Your task to perform on an android device: Open eBay Image 0: 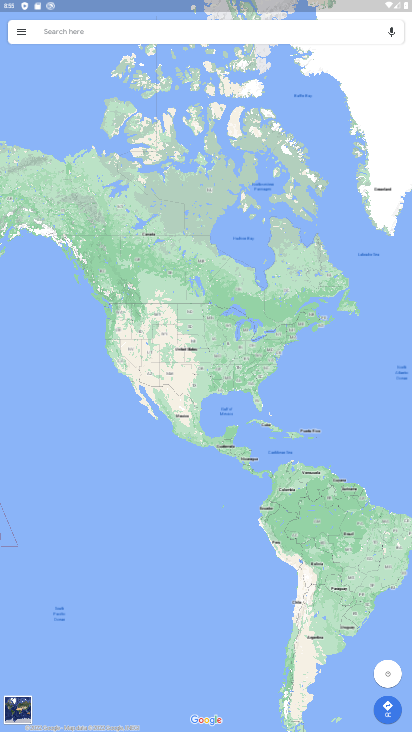
Step 0: press home button
Your task to perform on an android device: Open eBay Image 1: 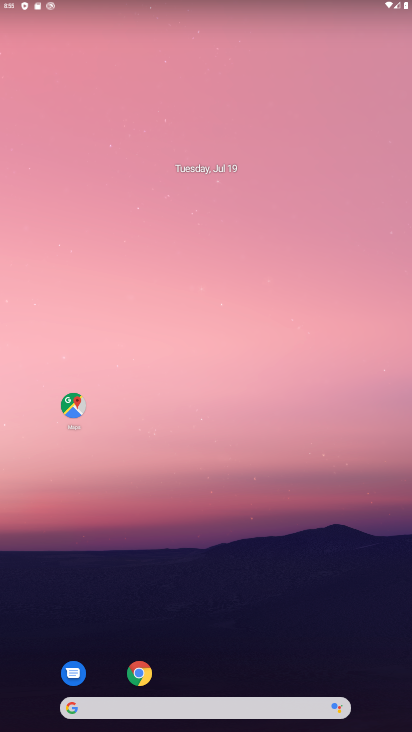
Step 1: click (147, 663)
Your task to perform on an android device: Open eBay Image 2: 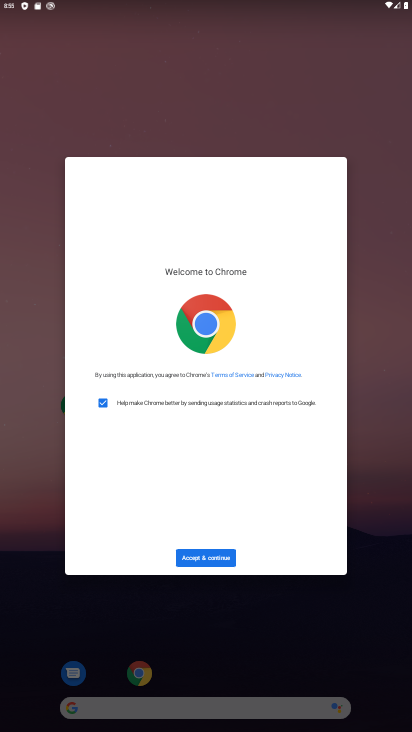
Step 2: click (221, 550)
Your task to perform on an android device: Open eBay Image 3: 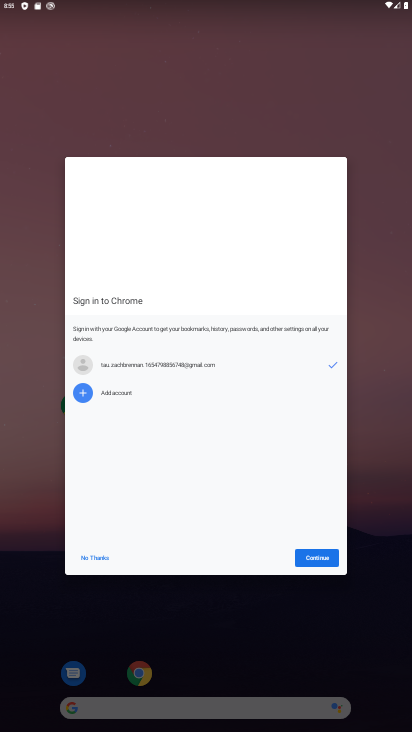
Step 3: click (311, 556)
Your task to perform on an android device: Open eBay Image 4: 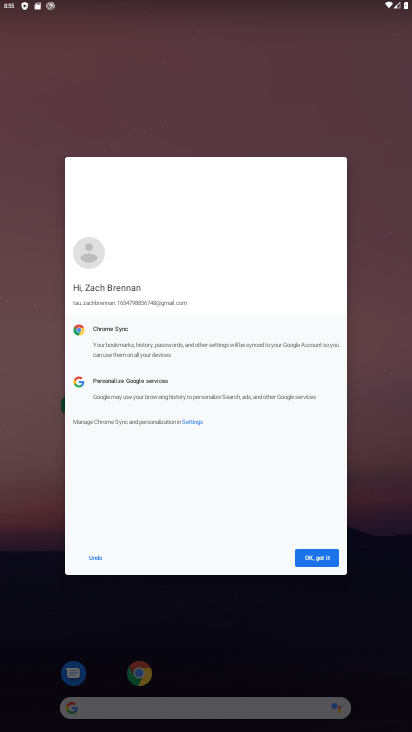
Step 4: click (305, 554)
Your task to perform on an android device: Open eBay Image 5: 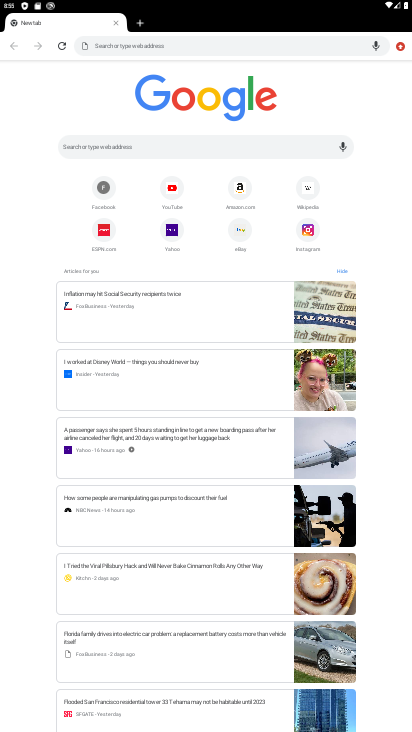
Step 5: click (236, 232)
Your task to perform on an android device: Open eBay Image 6: 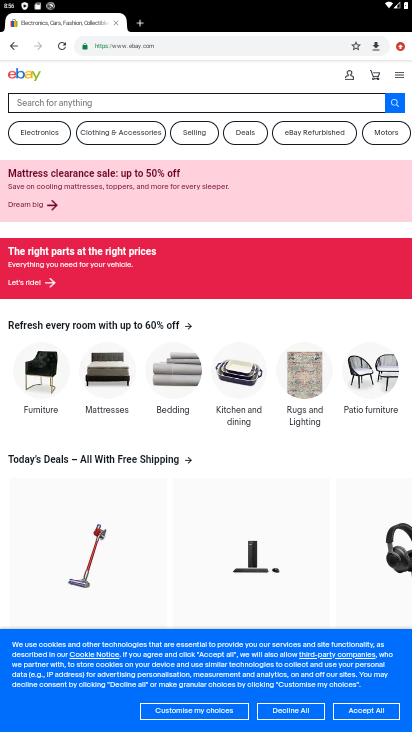
Step 6: task complete